Your task to perform on an android device: open app "Duolingo: language lessons" Image 0: 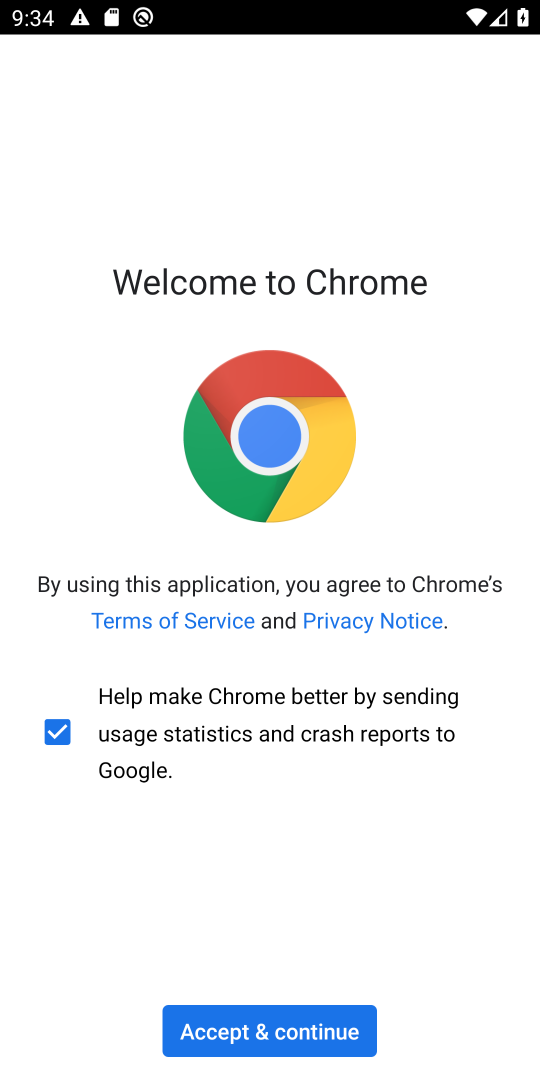
Step 0: press home button
Your task to perform on an android device: open app "Duolingo: language lessons" Image 1: 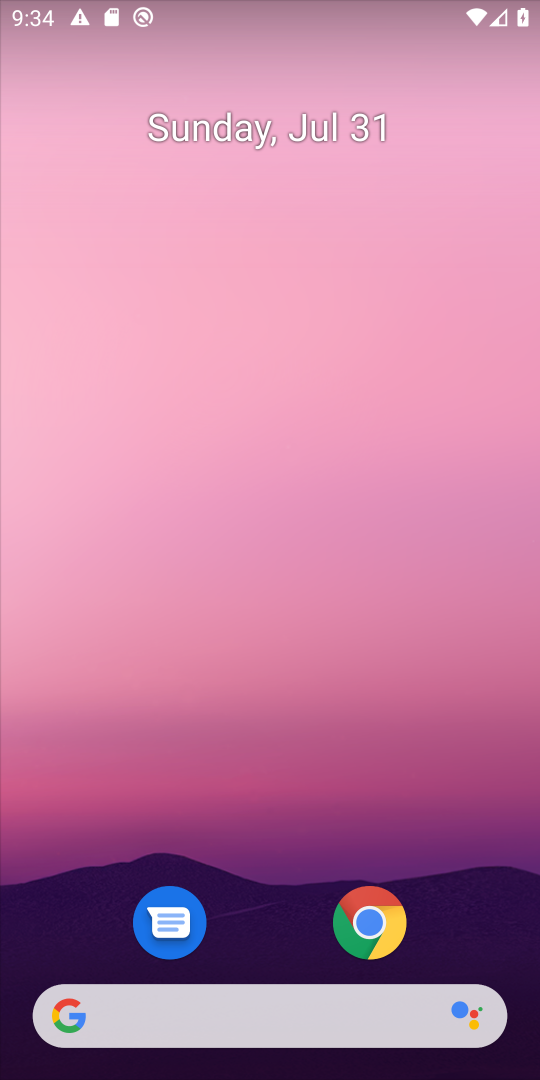
Step 1: drag from (267, 1056) to (265, 84)
Your task to perform on an android device: open app "Duolingo: language lessons" Image 2: 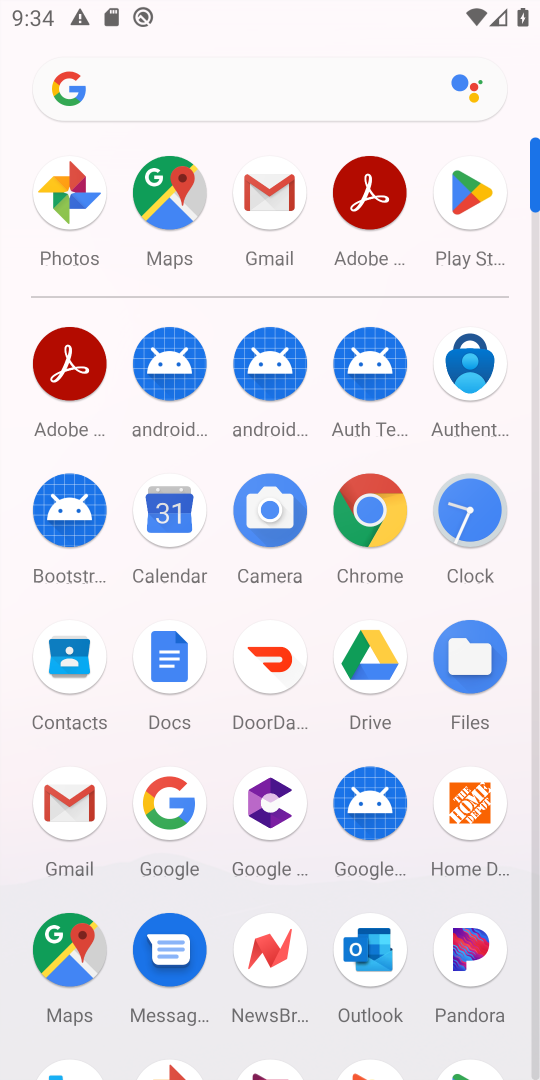
Step 2: click (468, 193)
Your task to perform on an android device: open app "Duolingo: language lessons" Image 3: 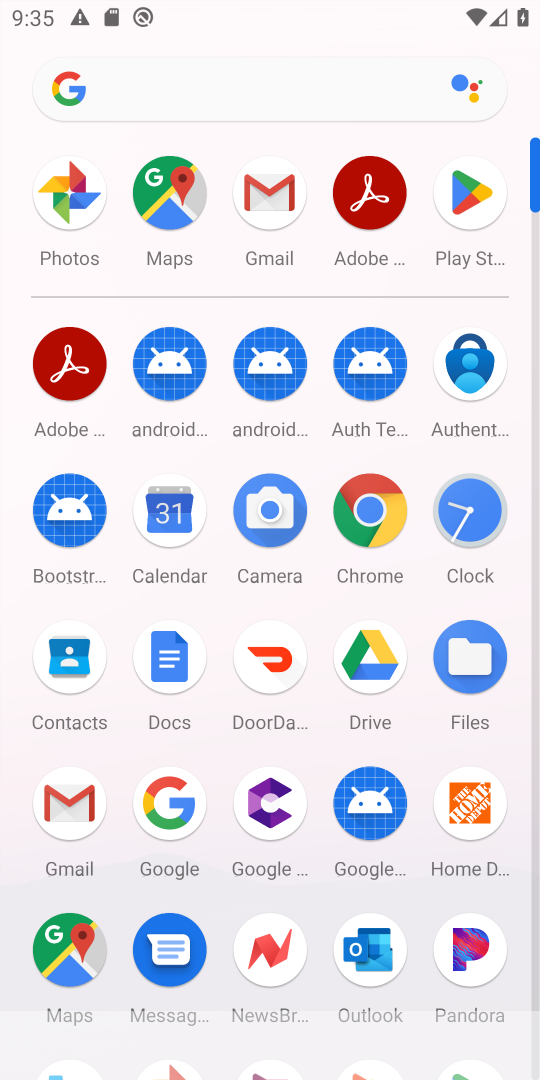
Step 3: click (470, 194)
Your task to perform on an android device: open app "Duolingo: language lessons" Image 4: 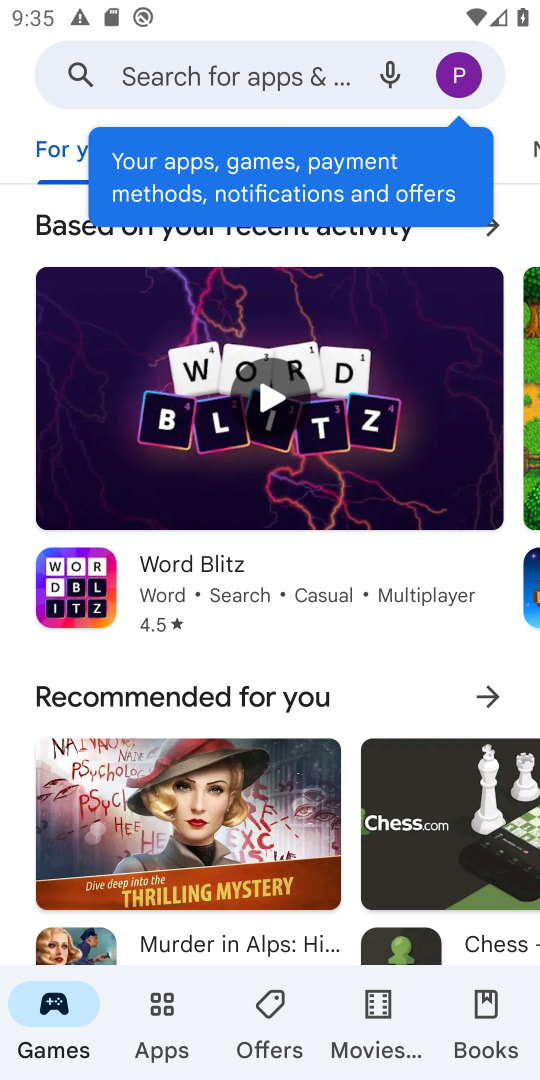
Step 4: click (281, 78)
Your task to perform on an android device: open app "Duolingo: language lessons" Image 5: 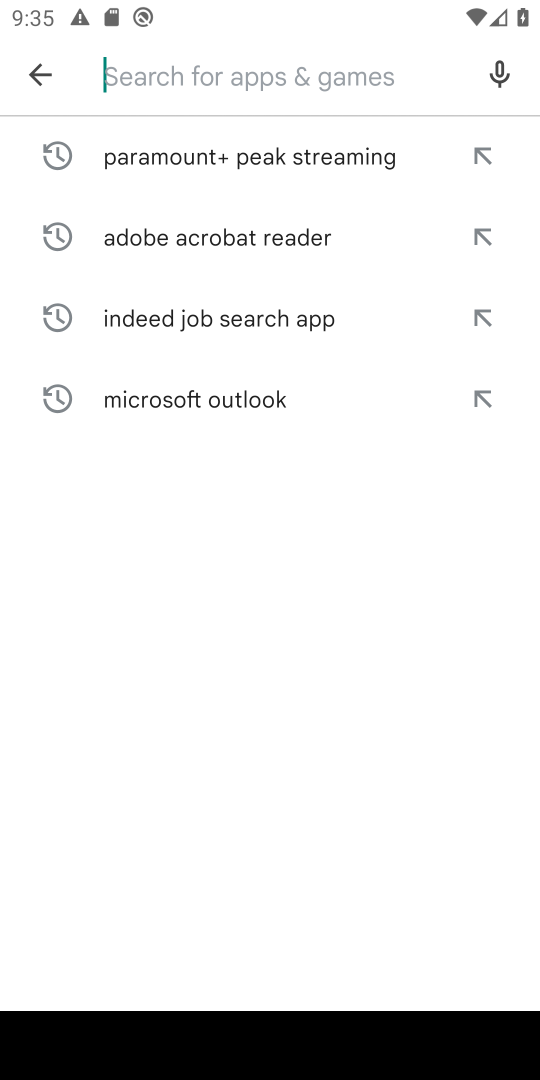
Step 5: type "Duolingo: language lessons"
Your task to perform on an android device: open app "Duolingo: language lessons" Image 6: 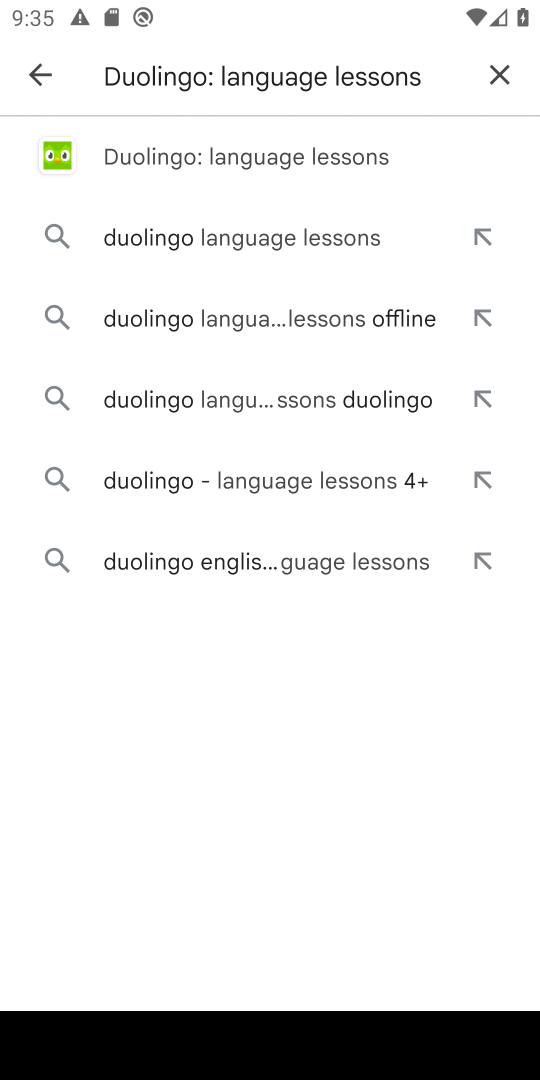
Step 6: click (314, 159)
Your task to perform on an android device: open app "Duolingo: language lessons" Image 7: 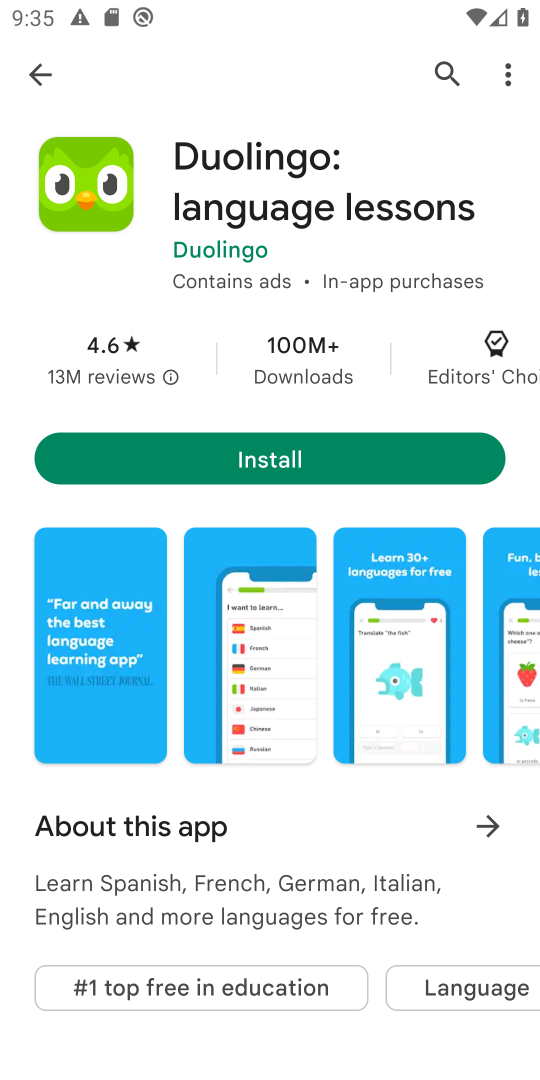
Step 7: task complete